Your task to perform on an android device: turn off location history Image 0: 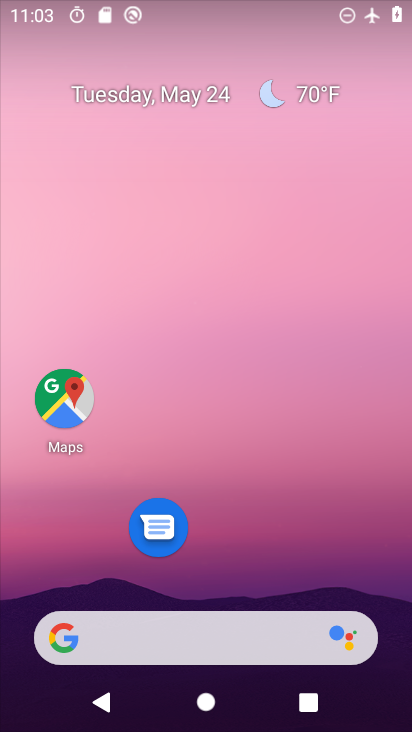
Step 0: drag from (262, 554) to (235, 122)
Your task to perform on an android device: turn off location history Image 1: 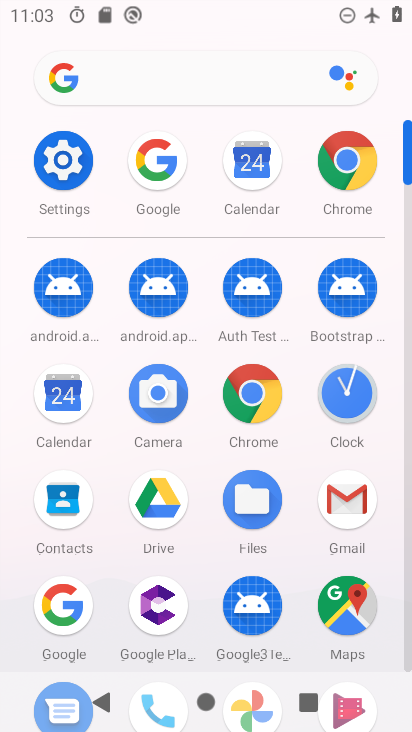
Step 1: click (62, 162)
Your task to perform on an android device: turn off location history Image 2: 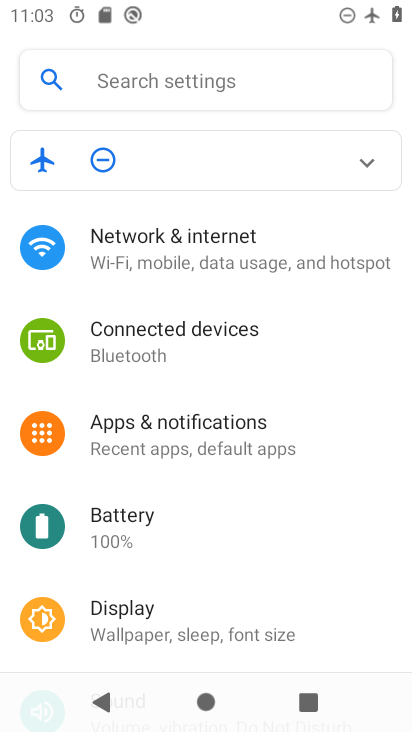
Step 2: drag from (222, 586) to (194, 127)
Your task to perform on an android device: turn off location history Image 3: 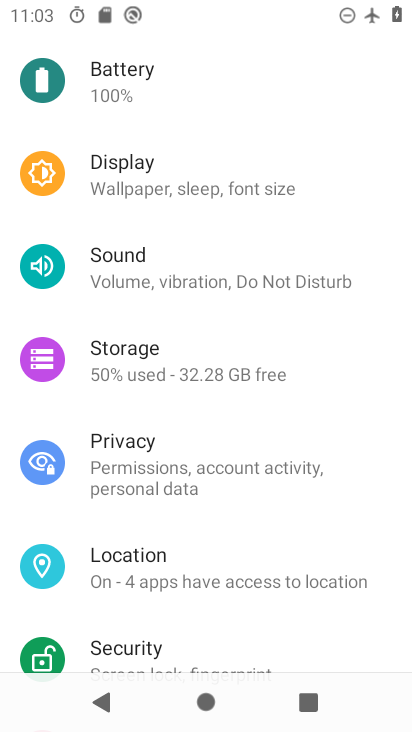
Step 3: click (177, 557)
Your task to perform on an android device: turn off location history Image 4: 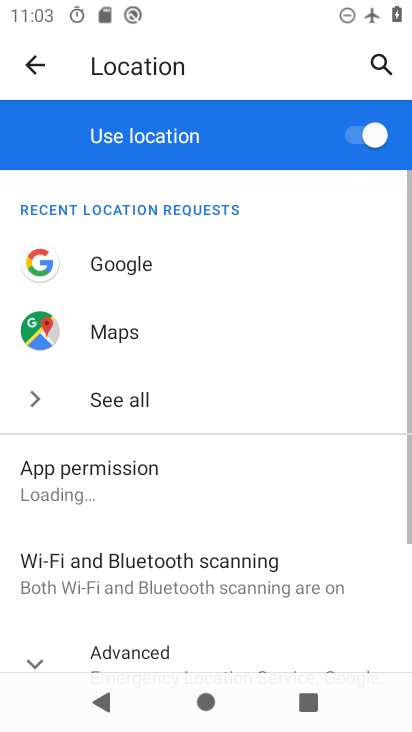
Step 4: drag from (252, 578) to (233, 232)
Your task to perform on an android device: turn off location history Image 5: 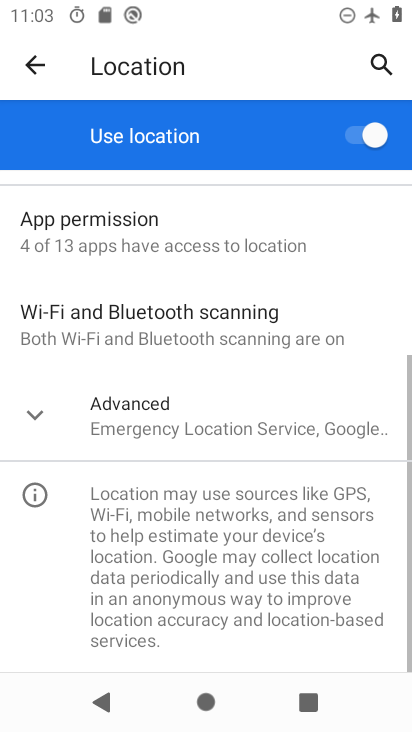
Step 5: click (167, 413)
Your task to perform on an android device: turn off location history Image 6: 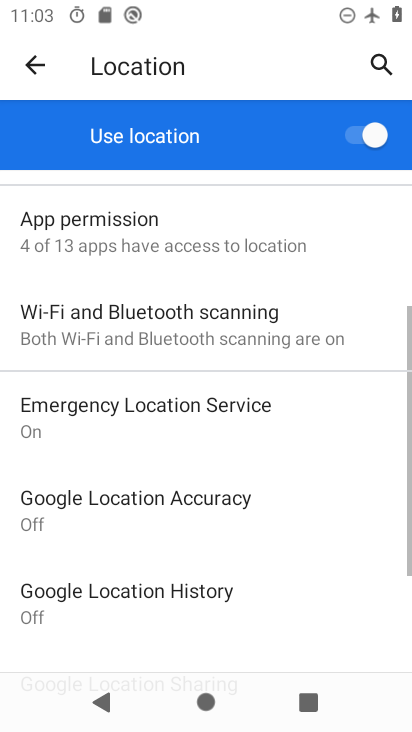
Step 6: drag from (278, 617) to (275, 417)
Your task to perform on an android device: turn off location history Image 7: 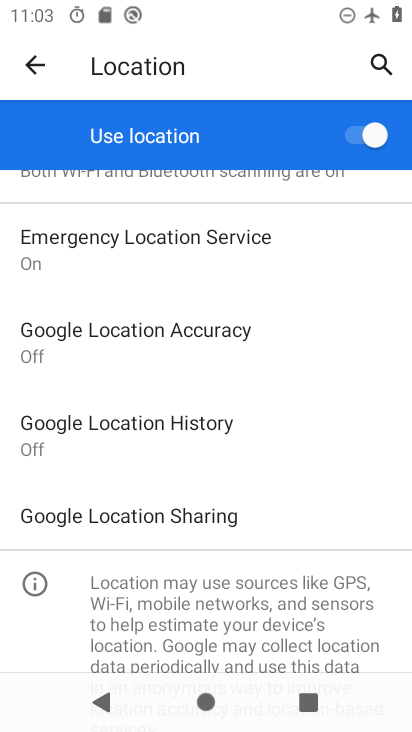
Step 7: click (124, 444)
Your task to perform on an android device: turn off location history Image 8: 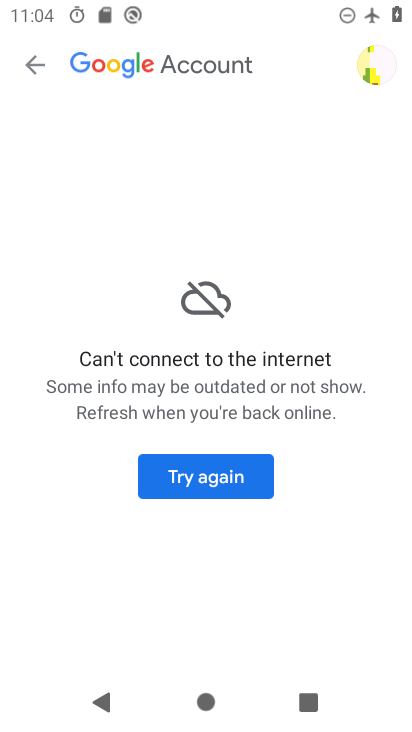
Step 8: task complete